Your task to perform on an android device: change the clock display to digital Image 0: 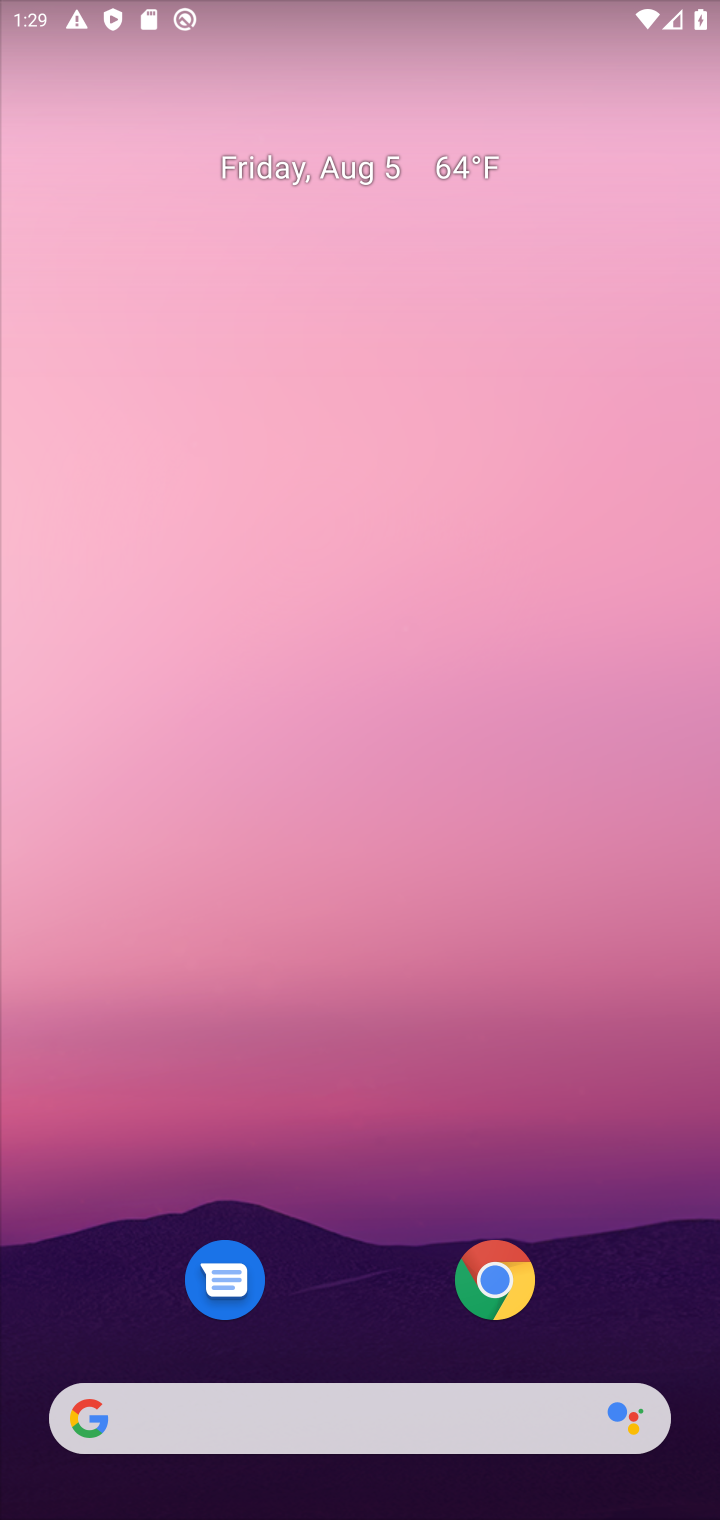
Step 0: press home button
Your task to perform on an android device: change the clock display to digital Image 1: 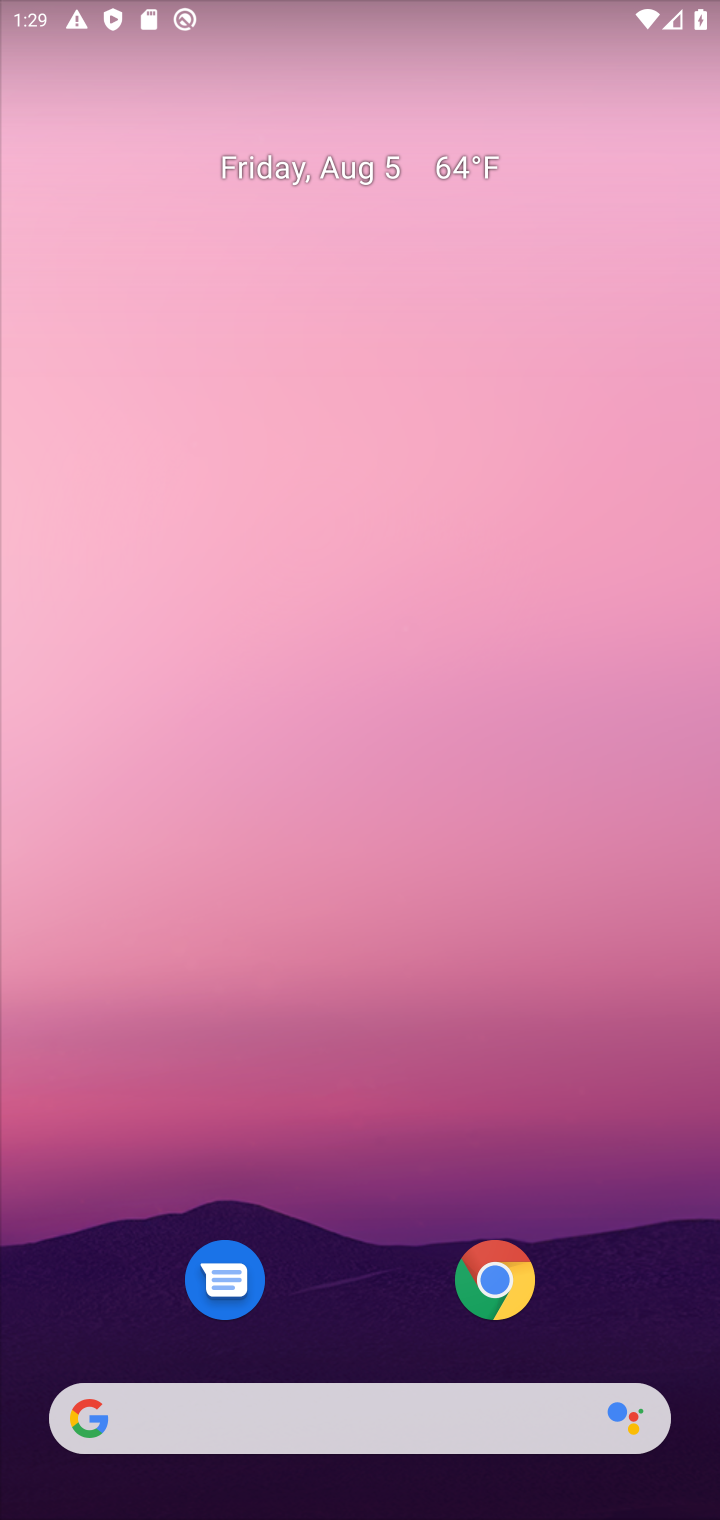
Step 1: click (372, 452)
Your task to perform on an android device: change the clock display to digital Image 2: 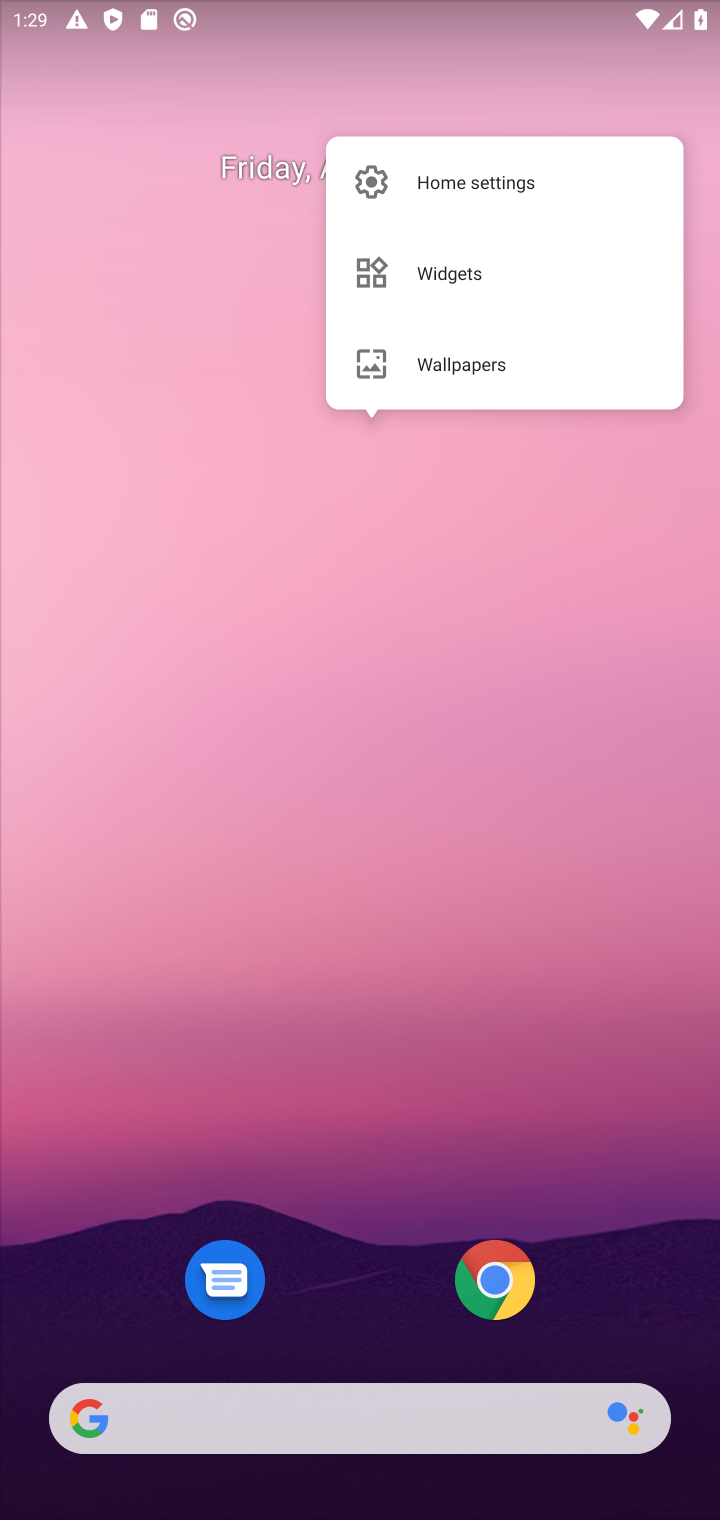
Step 2: click (302, 1122)
Your task to perform on an android device: change the clock display to digital Image 3: 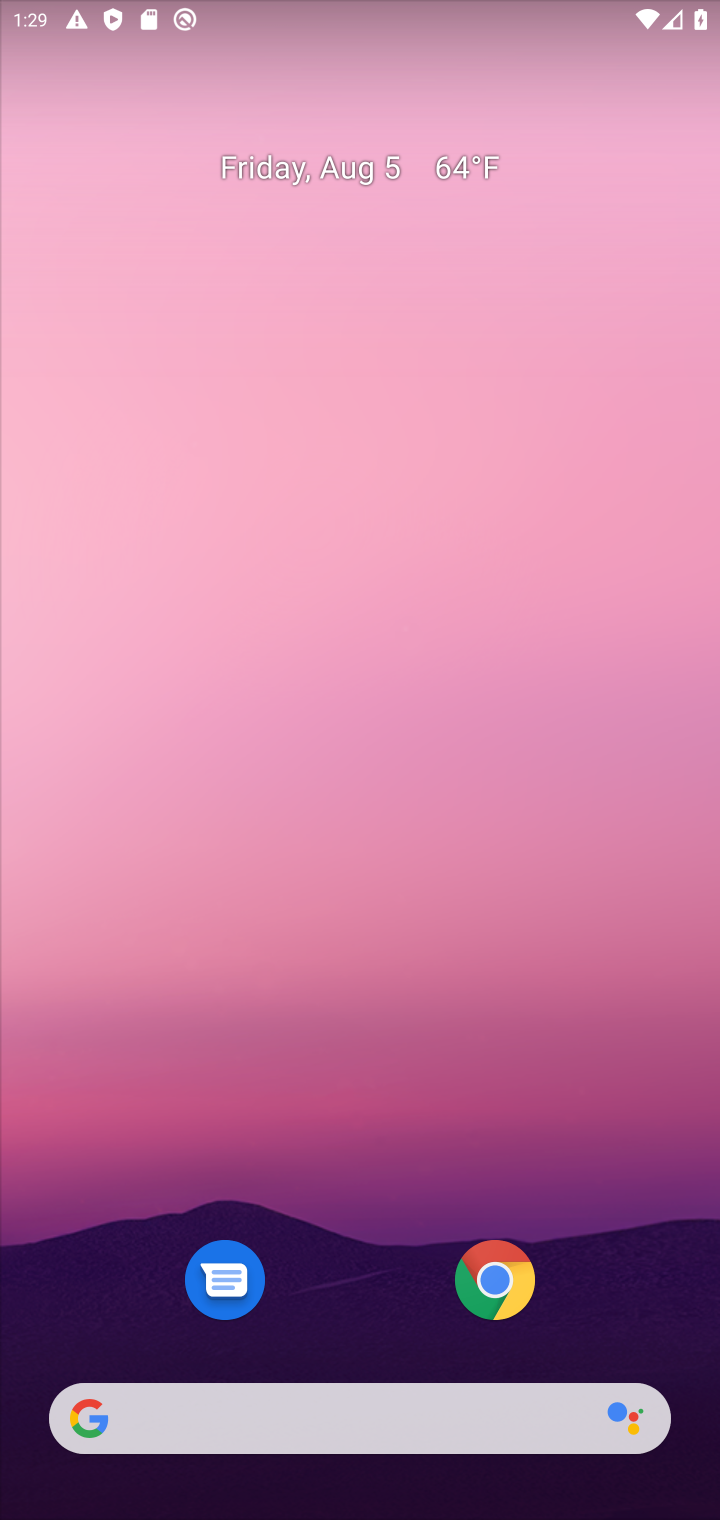
Step 3: drag from (363, 1338) to (214, 204)
Your task to perform on an android device: change the clock display to digital Image 4: 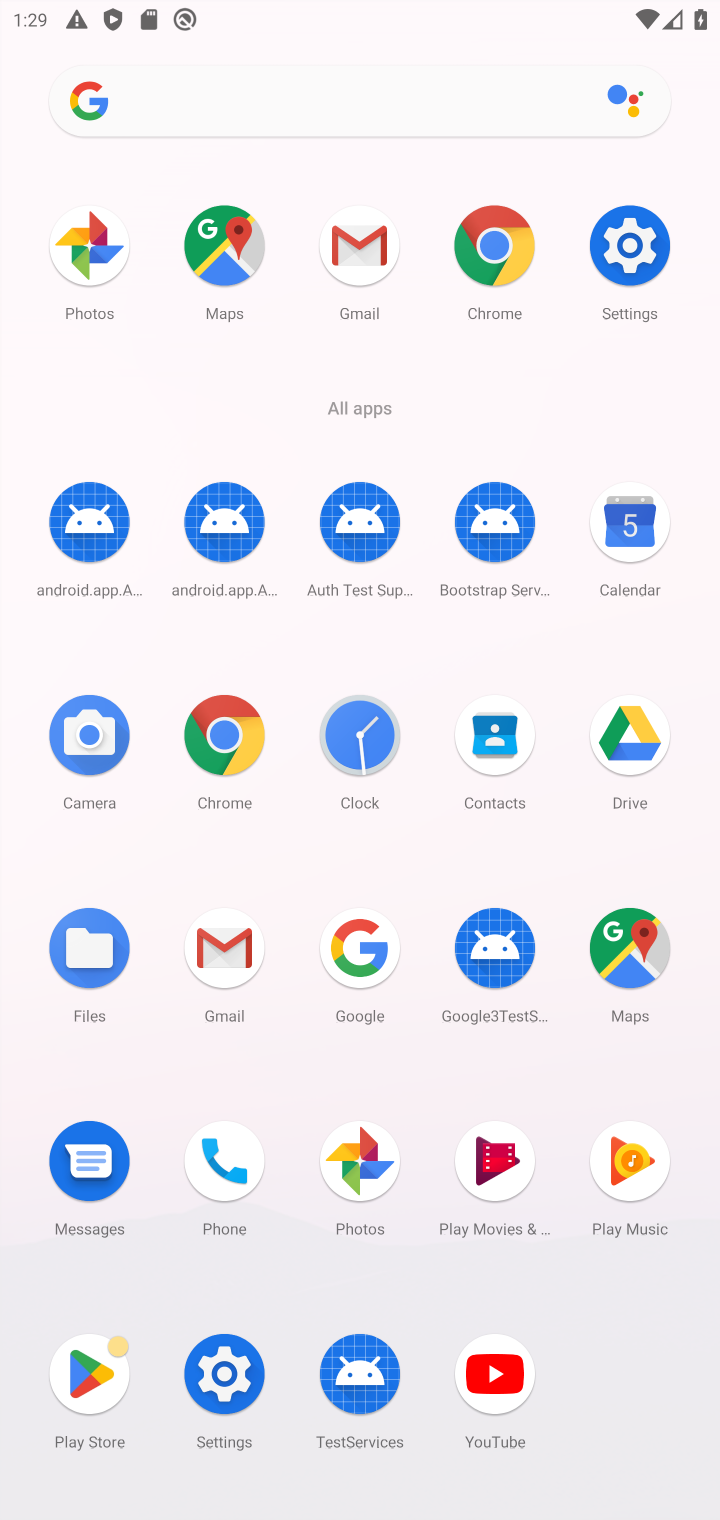
Step 4: click (345, 742)
Your task to perform on an android device: change the clock display to digital Image 5: 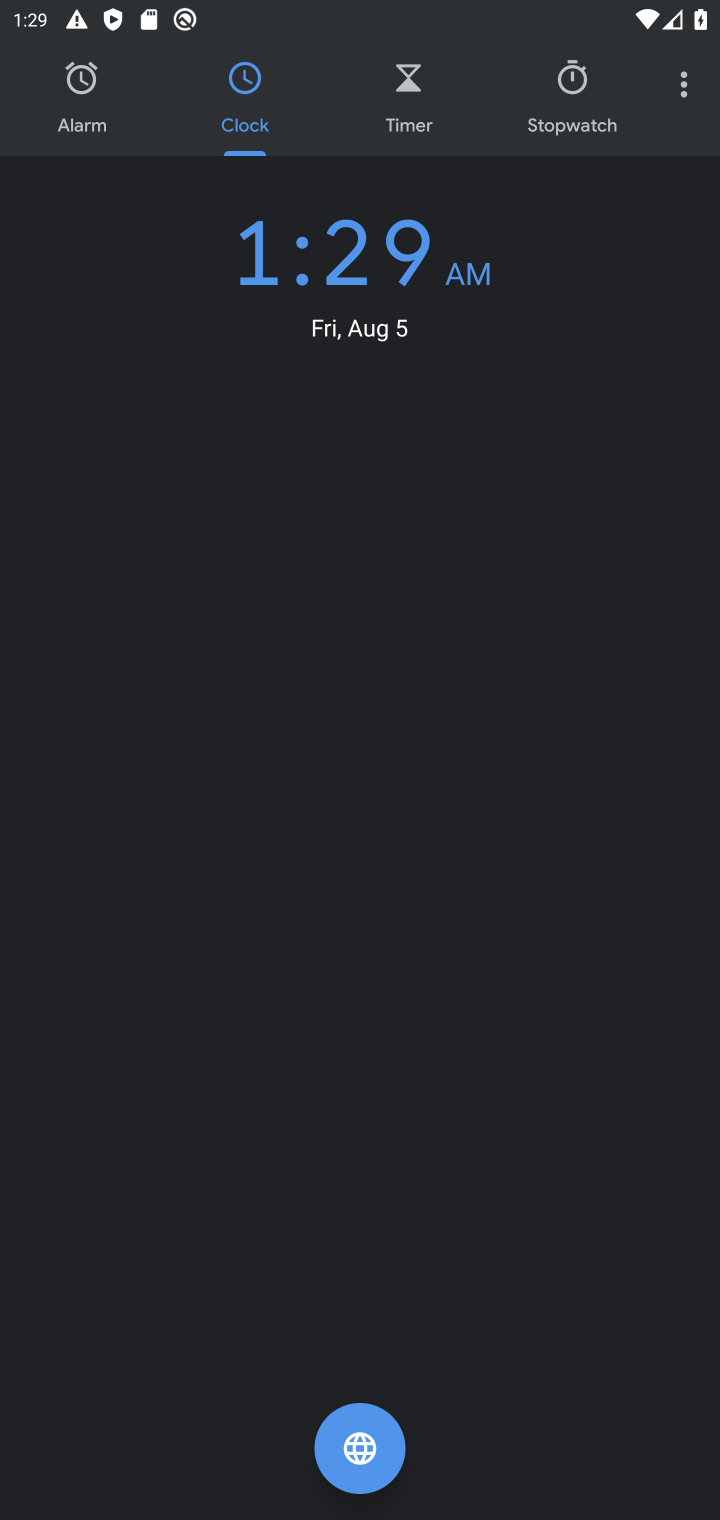
Step 5: click (679, 102)
Your task to perform on an android device: change the clock display to digital Image 6: 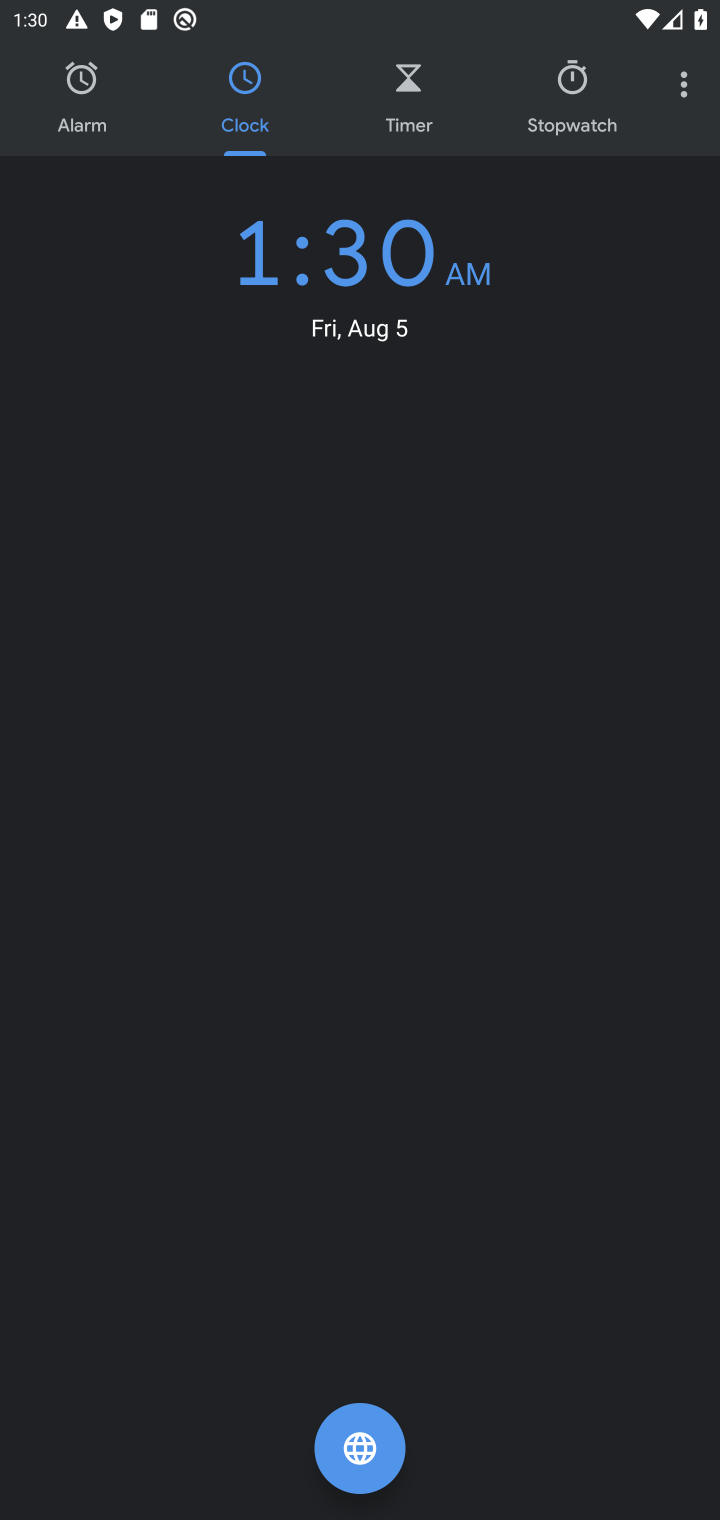
Step 6: click (685, 99)
Your task to perform on an android device: change the clock display to digital Image 7: 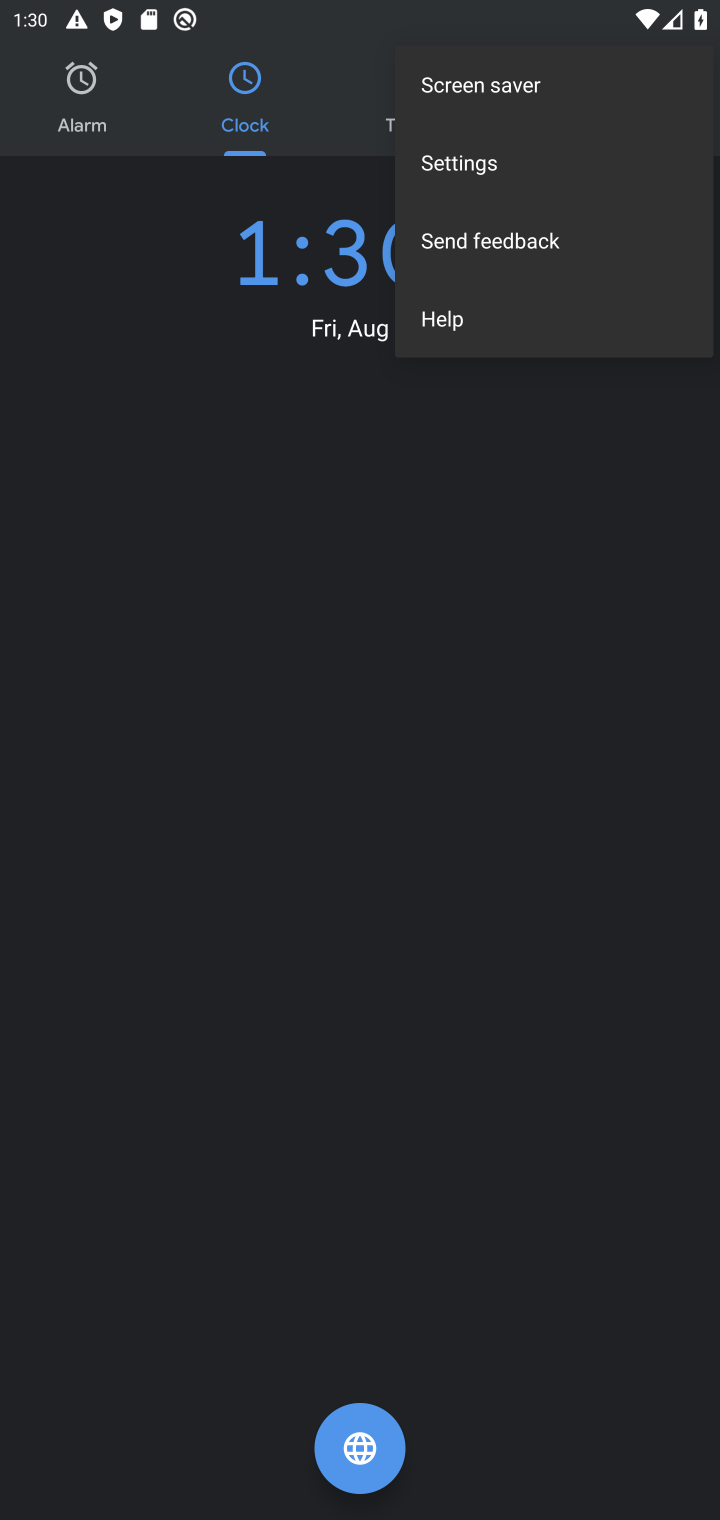
Step 7: click (498, 159)
Your task to perform on an android device: change the clock display to digital Image 8: 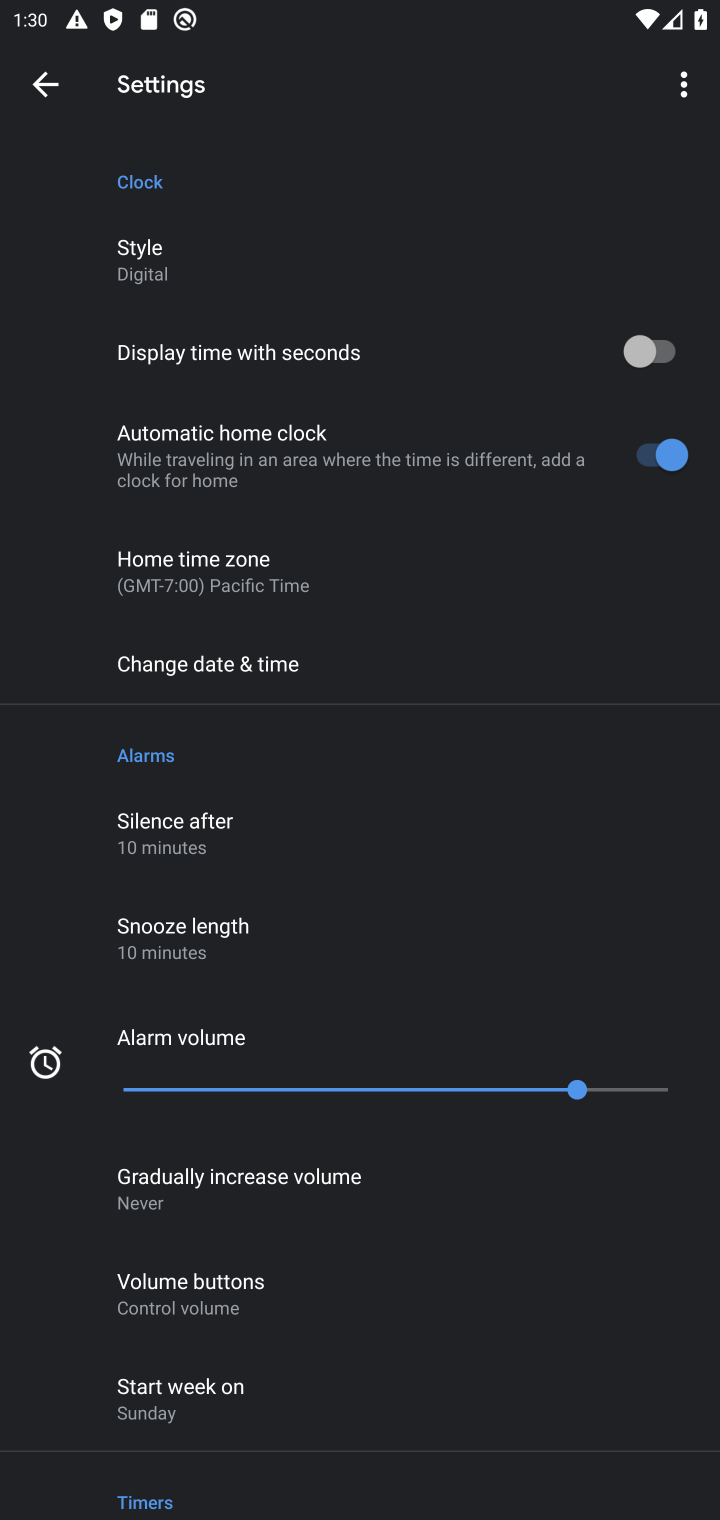
Step 8: click (174, 259)
Your task to perform on an android device: change the clock display to digital Image 9: 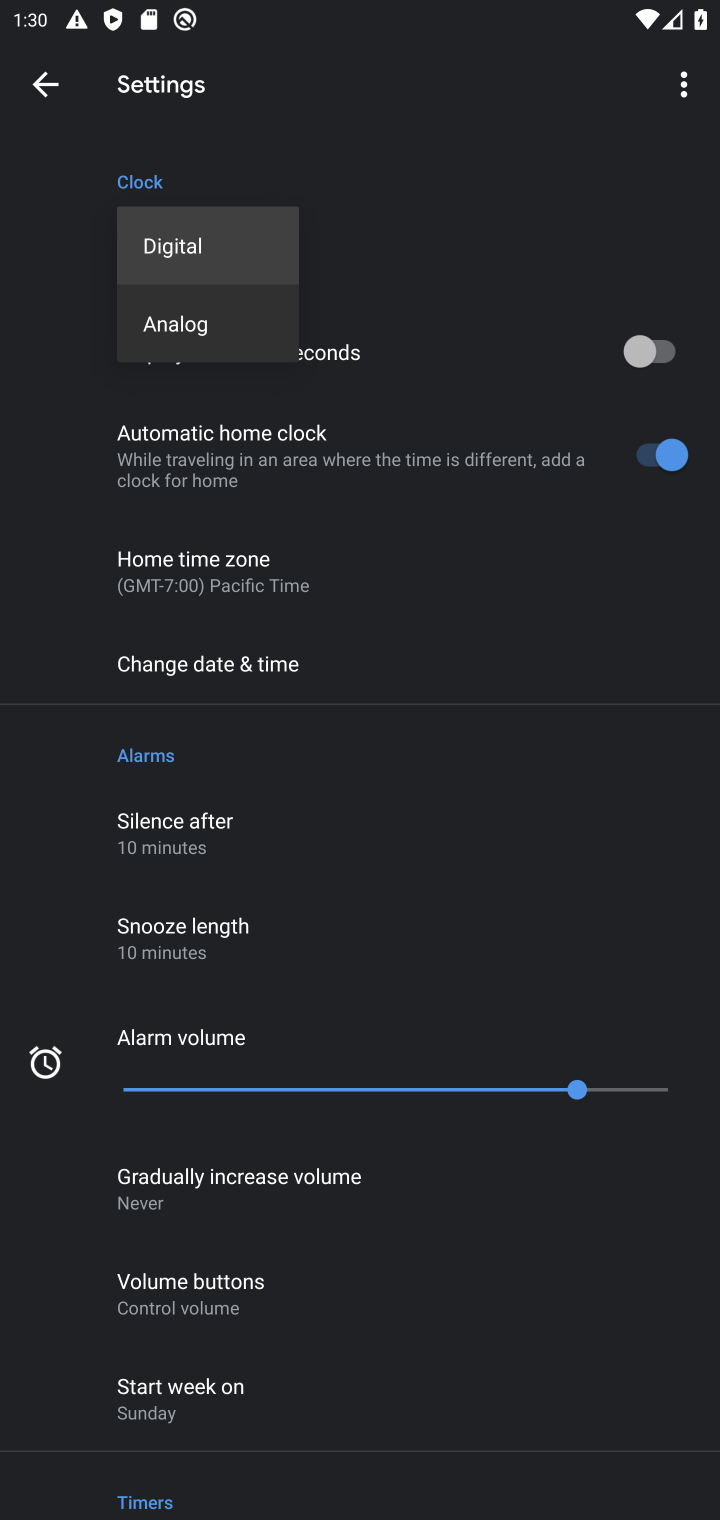
Step 9: click (249, 255)
Your task to perform on an android device: change the clock display to digital Image 10: 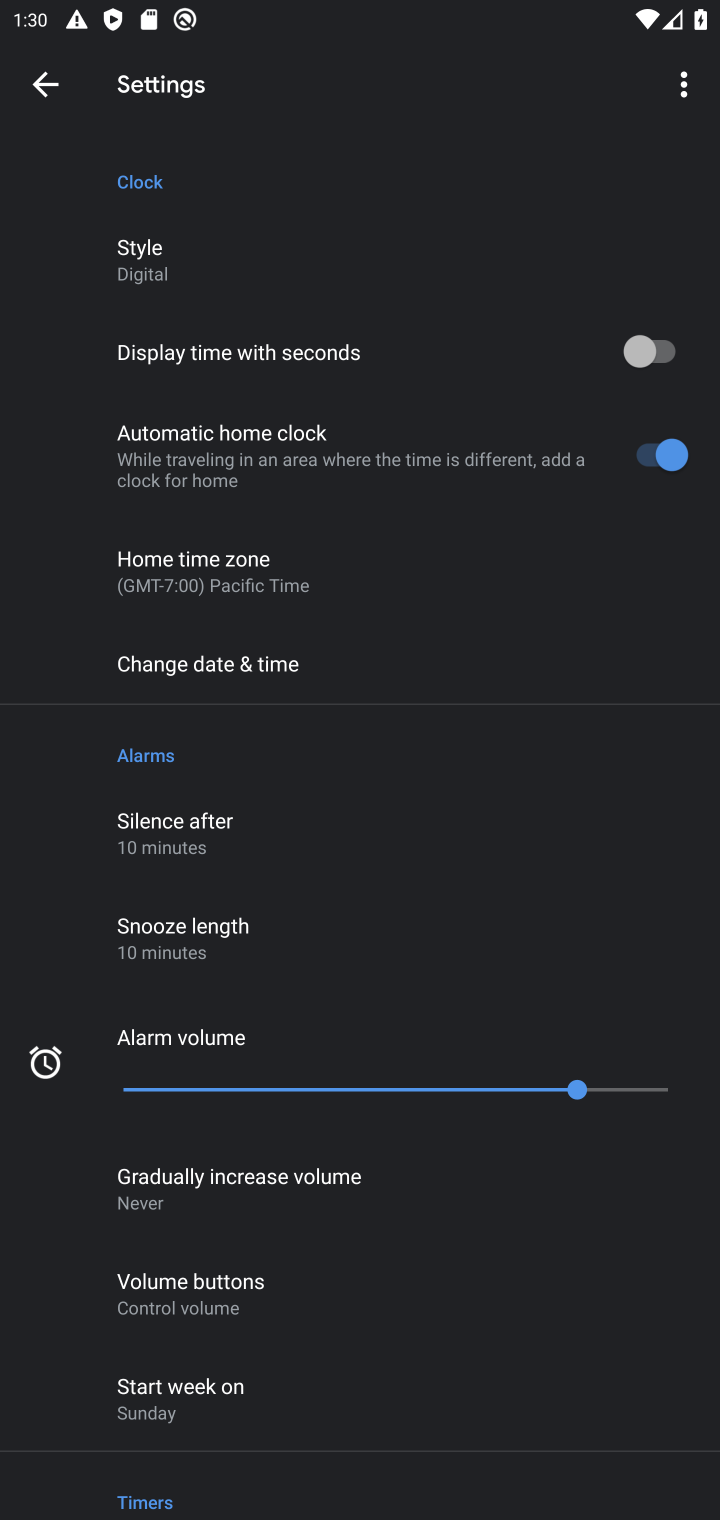
Step 10: task complete